Your task to perform on an android device: Do I have any events tomorrow? Image 0: 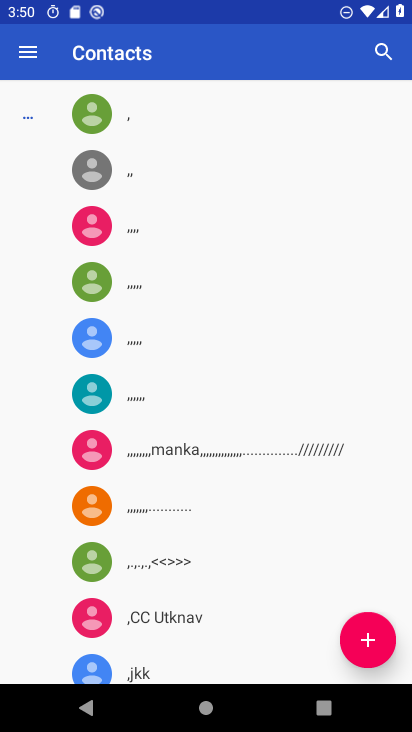
Step 0: press home button
Your task to perform on an android device: Do I have any events tomorrow? Image 1: 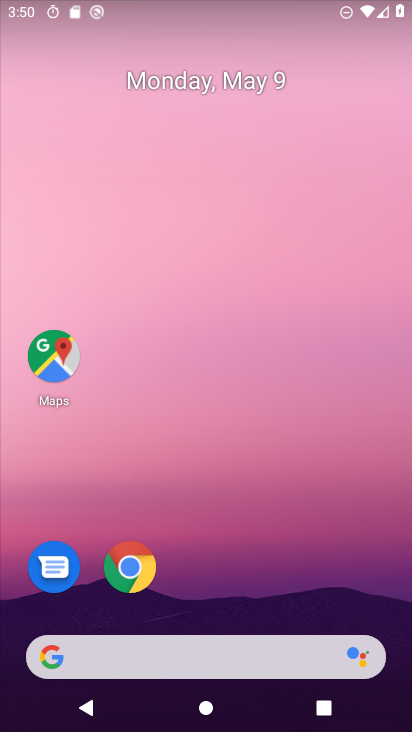
Step 1: click (212, 77)
Your task to perform on an android device: Do I have any events tomorrow? Image 2: 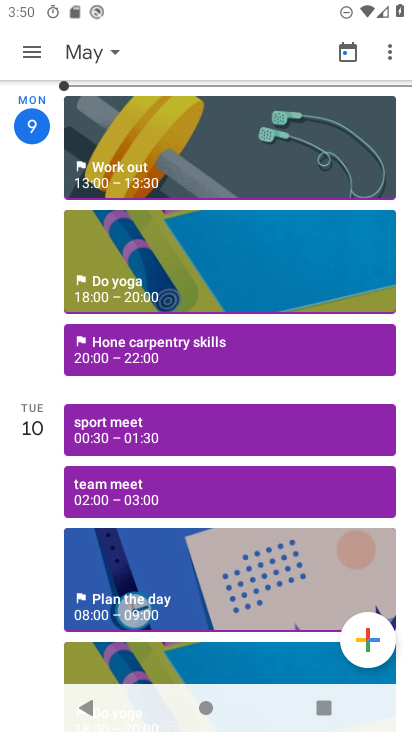
Step 2: drag from (206, 375) to (216, 61)
Your task to perform on an android device: Do I have any events tomorrow? Image 3: 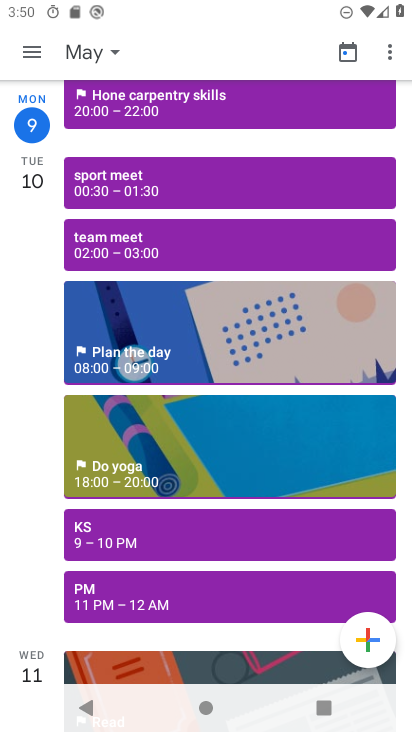
Step 3: drag from (226, 346) to (235, 266)
Your task to perform on an android device: Do I have any events tomorrow? Image 4: 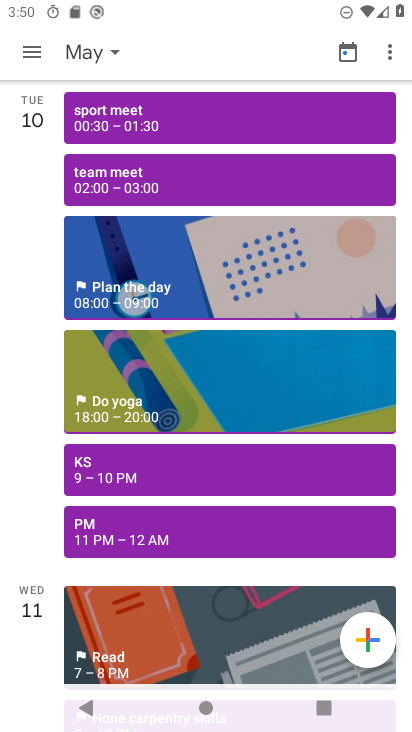
Step 4: click (32, 49)
Your task to perform on an android device: Do I have any events tomorrow? Image 5: 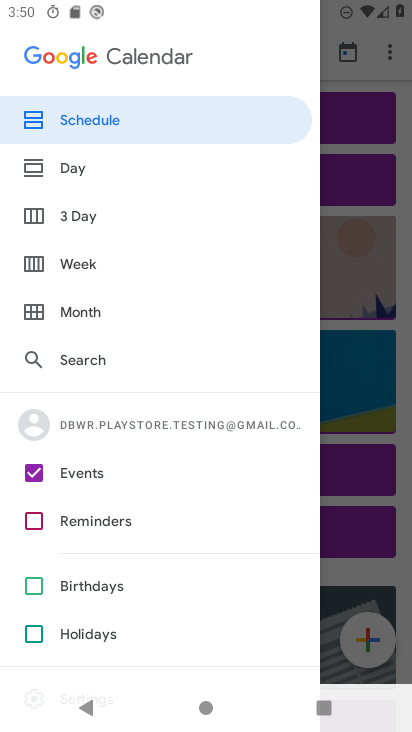
Step 5: click (379, 342)
Your task to perform on an android device: Do I have any events tomorrow? Image 6: 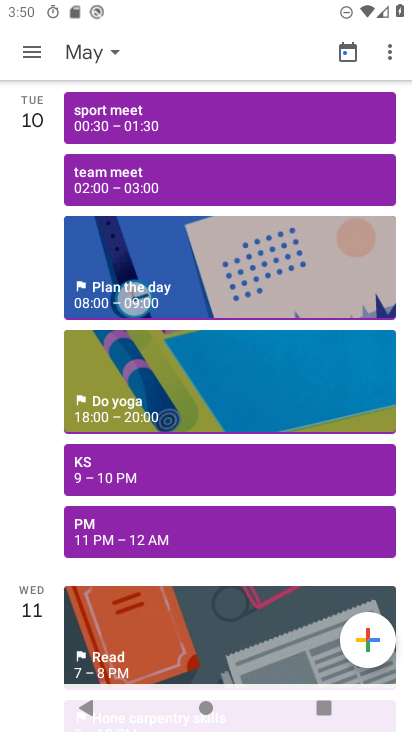
Step 6: task complete